Your task to perform on an android device: Open Android settings Image 0: 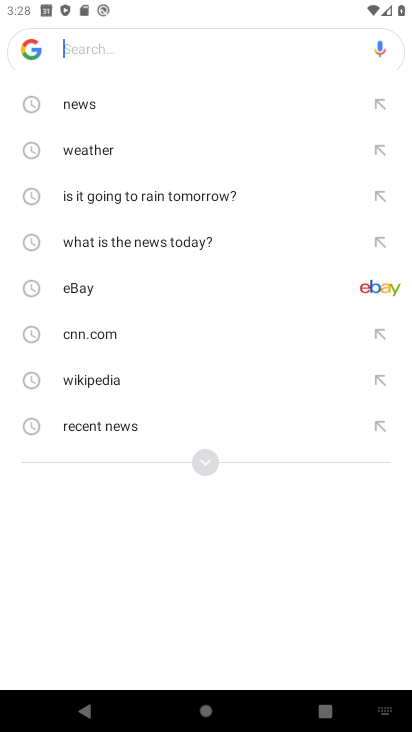
Step 0: press home button
Your task to perform on an android device: Open Android settings Image 1: 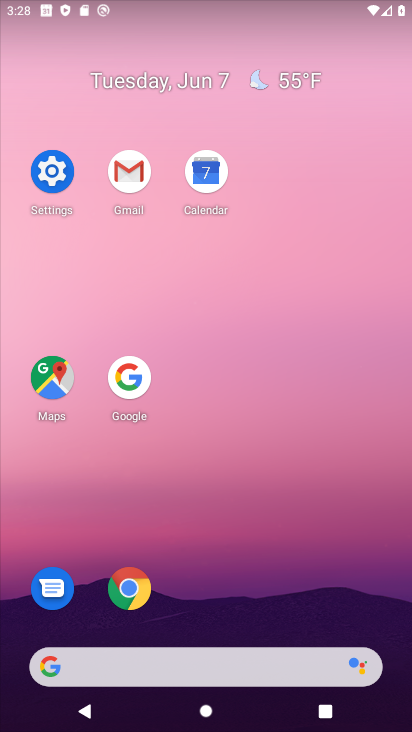
Step 1: click (56, 167)
Your task to perform on an android device: Open Android settings Image 2: 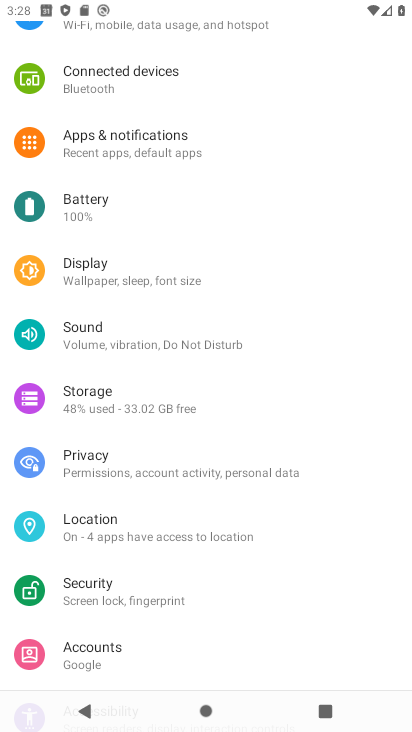
Step 2: task complete